Your task to perform on an android device: turn vacation reply on in the gmail app Image 0: 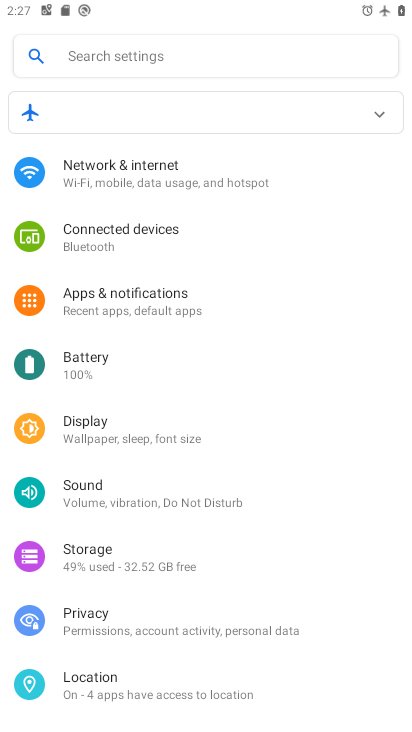
Step 0: press home button
Your task to perform on an android device: turn vacation reply on in the gmail app Image 1: 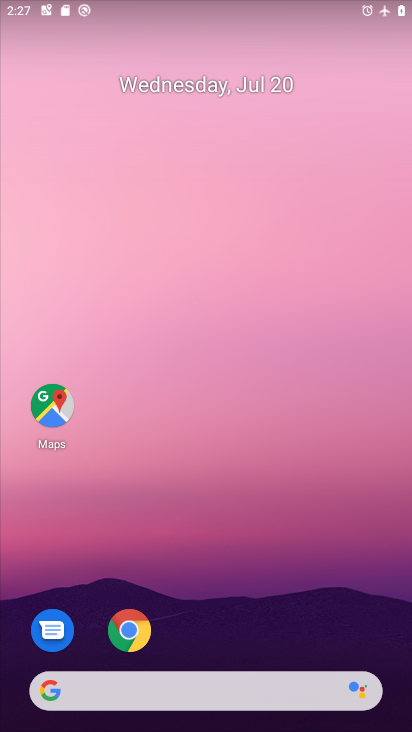
Step 1: drag from (222, 613) to (207, 199)
Your task to perform on an android device: turn vacation reply on in the gmail app Image 2: 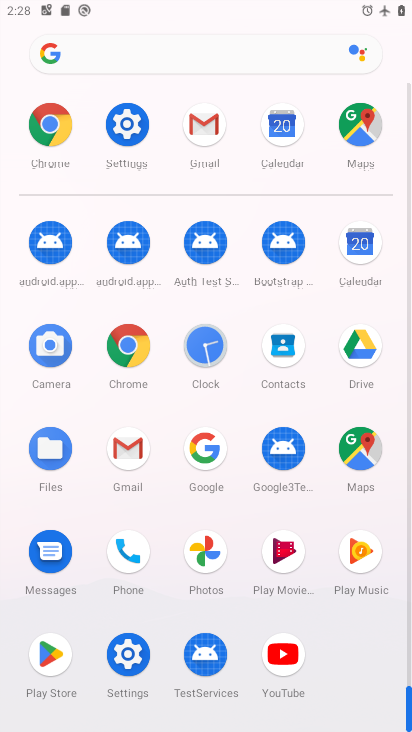
Step 2: click (124, 464)
Your task to perform on an android device: turn vacation reply on in the gmail app Image 3: 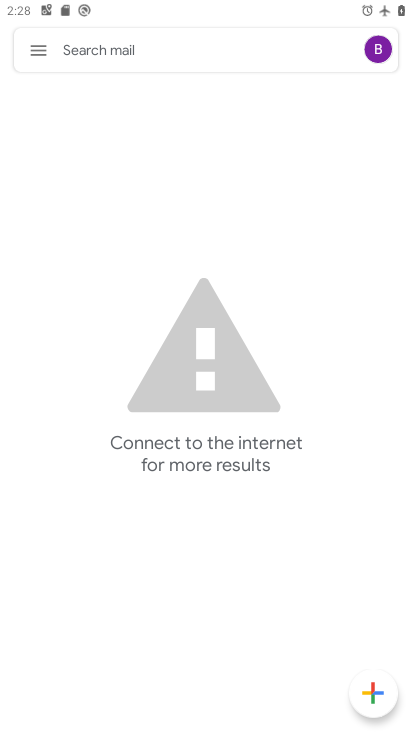
Step 3: click (34, 51)
Your task to perform on an android device: turn vacation reply on in the gmail app Image 4: 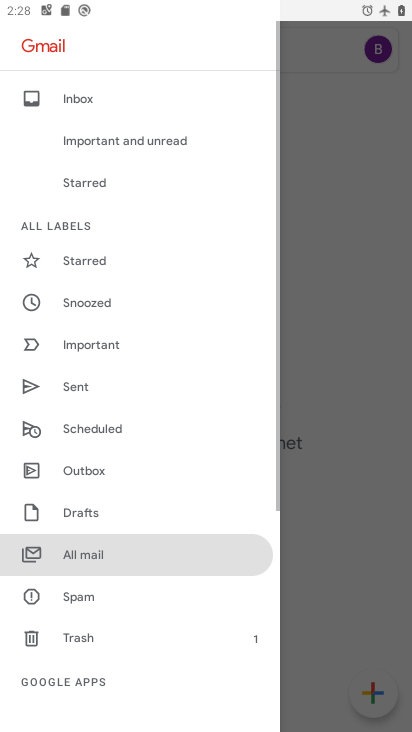
Step 4: drag from (91, 625) to (140, 148)
Your task to perform on an android device: turn vacation reply on in the gmail app Image 5: 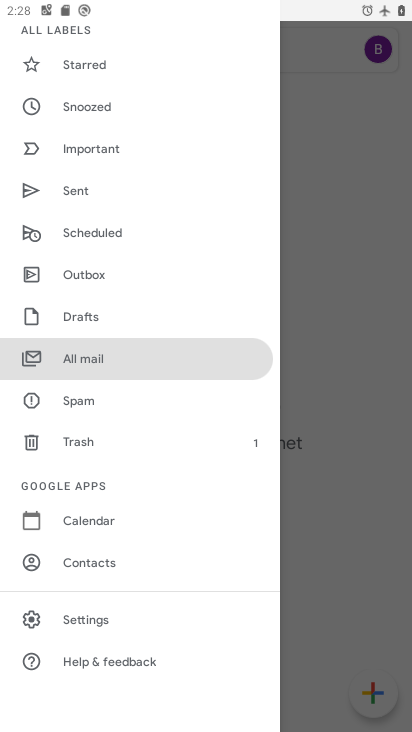
Step 5: drag from (73, 594) to (138, 293)
Your task to perform on an android device: turn vacation reply on in the gmail app Image 6: 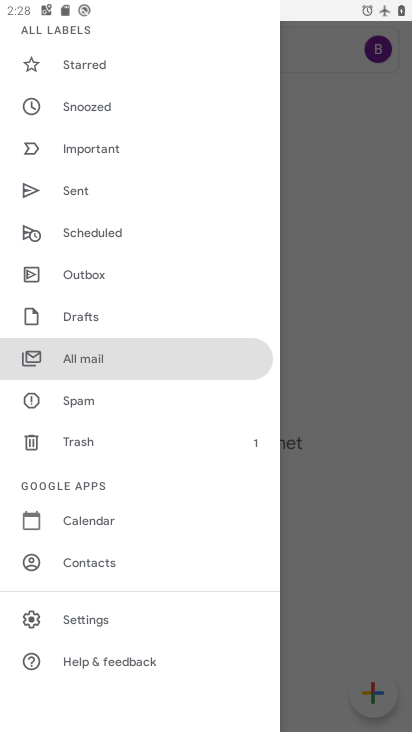
Step 6: click (99, 618)
Your task to perform on an android device: turn vacation reply on in the gmail app Image 7: 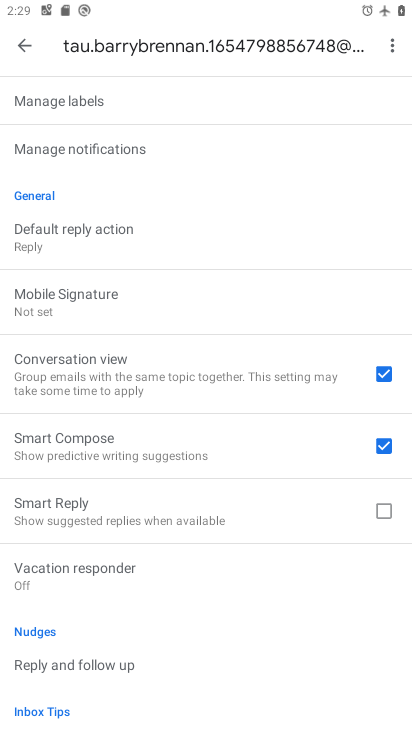
Step 7: click (145, 585)
Your task to perform on an android device: turn vacation reply on in the gmail app Image 8: 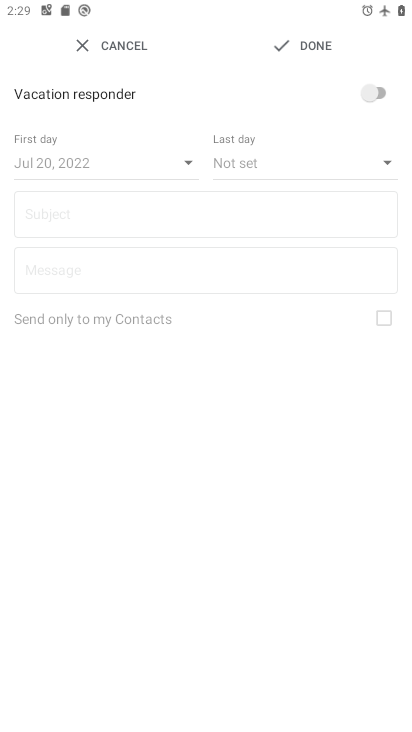
Step 8: click (378, 93)
Your task to perform on an android device: turn vacation reply on in the gmail app Image 9: 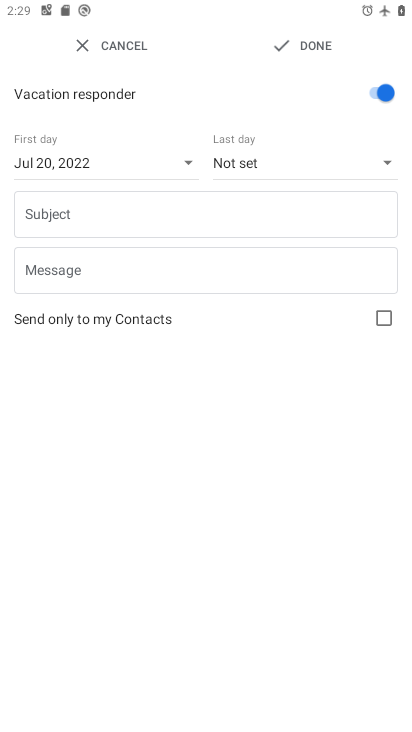
Step 9: task complete